Your task to perform on an android device: Show me recent news Image 0: 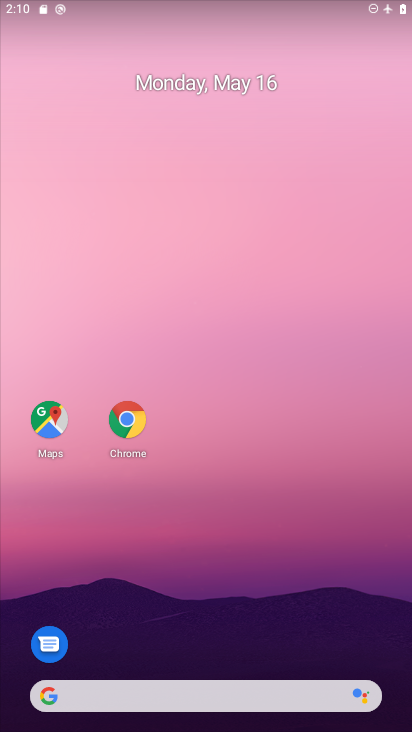
Step 0: drag from (180, 574) to (158, 51)
Your task to perform on an android device: Show me recent news Image 1: 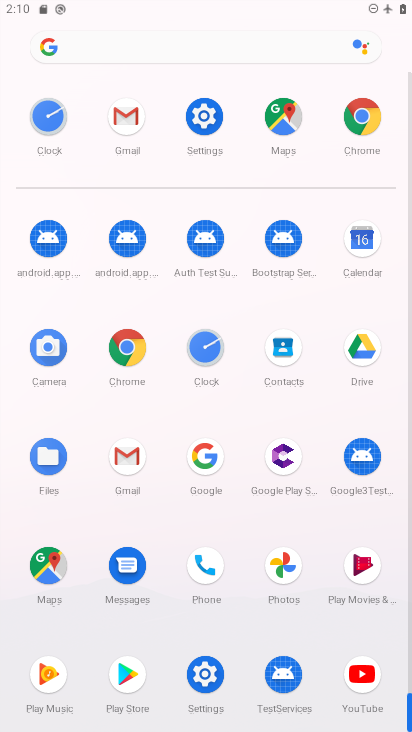
Step 1: click (78, 38)
Your task to perform on an android device: Show me recent news Image 2: 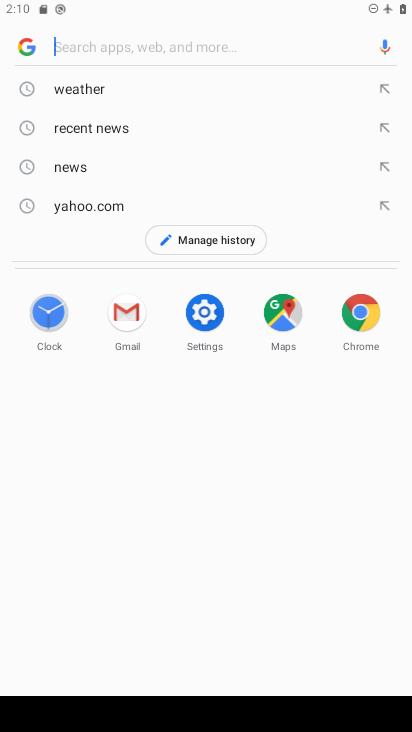
Step 2: click (84, 129)
Your task to perform on an android device: Show me recent news Image 3: 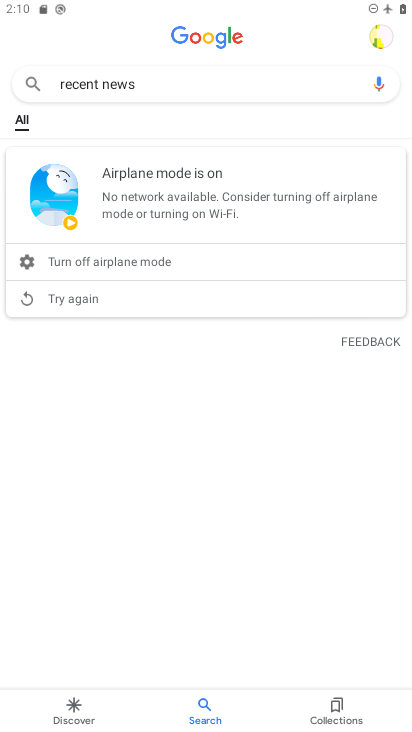
Step 3: task complete